Your task to perform on an android device: Open Chrome and go to the settings page Image 0: 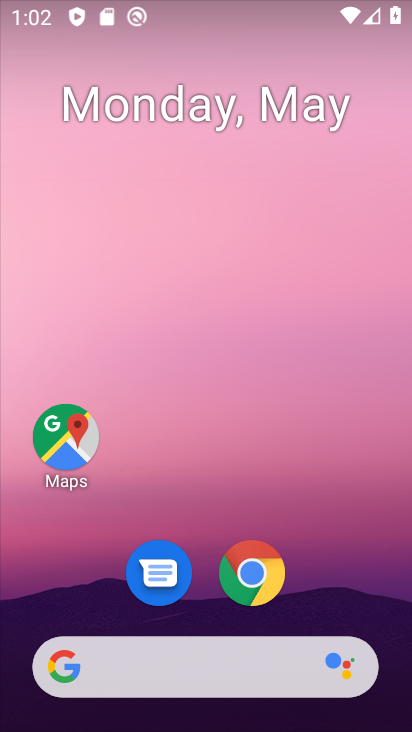
Step 0: click (251, 571)
Your task to perform on an android device: Open Chrome and go to the settings page Image 1: 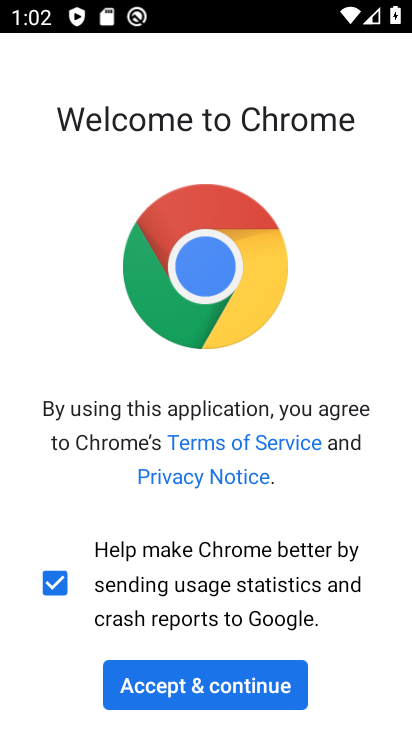
Step 1: click (193, 681)
Your task to perform on an android device: Open Chrome and go to the settings page Image 2: 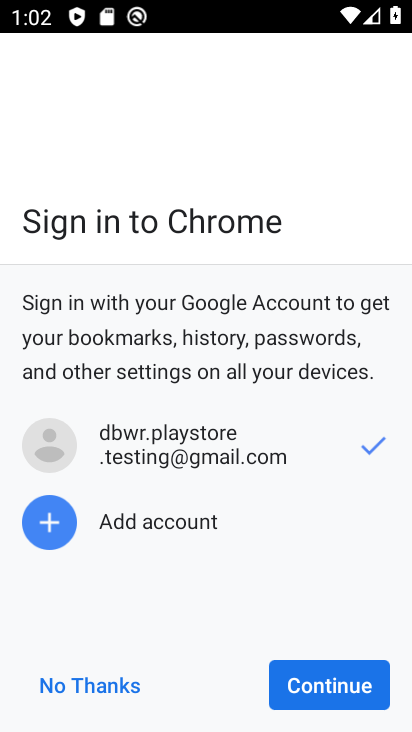
Step 2: click (328, 679)
Your task to perform on an android device: Open Chrome and go to the settings page Image 3: 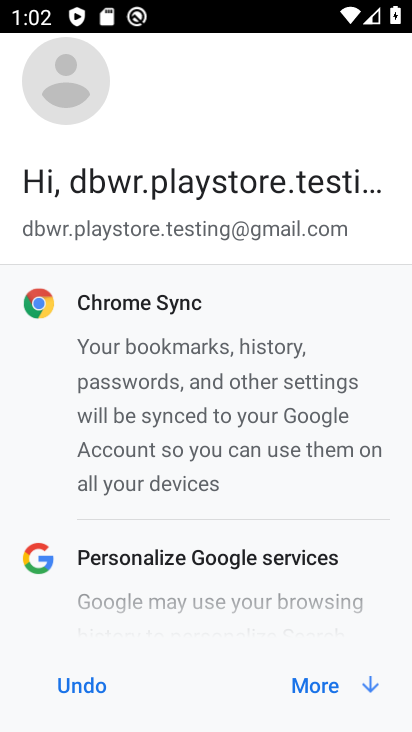
Step 3: click (306, 689)
Your task to perform on an android device: Open Chrome and go to the settings page Image 4: 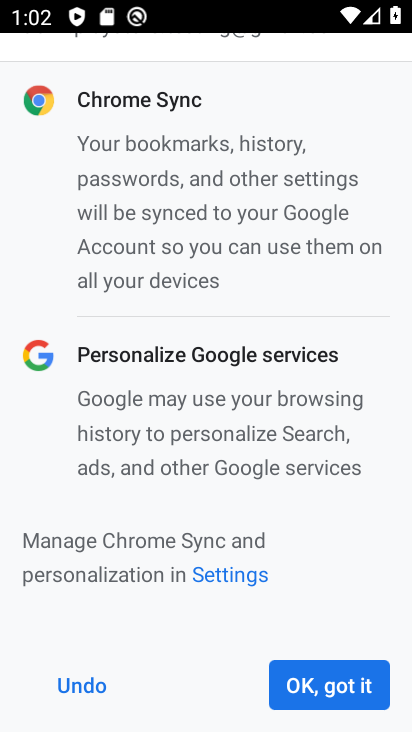
Step 4: click (321, 685)
Your task to perform on an android device: Open Chrome and go to the settings page Image 5: 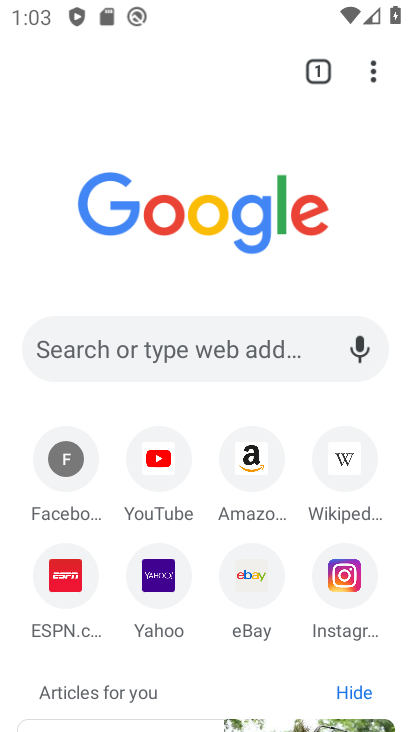
Step 5: click (373, 71)
Your task to perform on an android device: Open Chrome and go to the settings page Image 6: 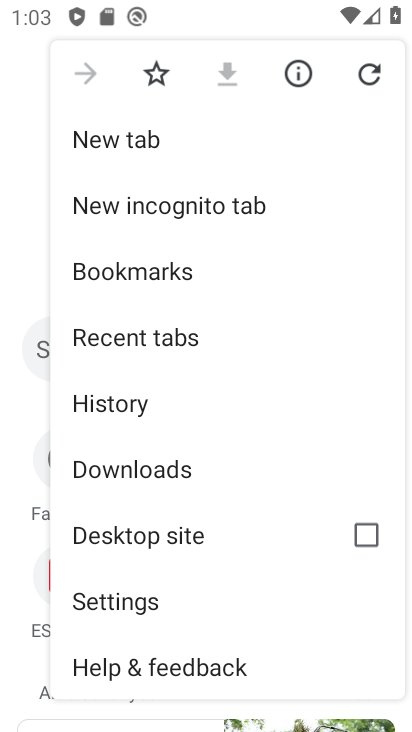
Step 6: click (138, 612)
Your task to perform on an android device: Open Chrome and go to the settings page Image 7: 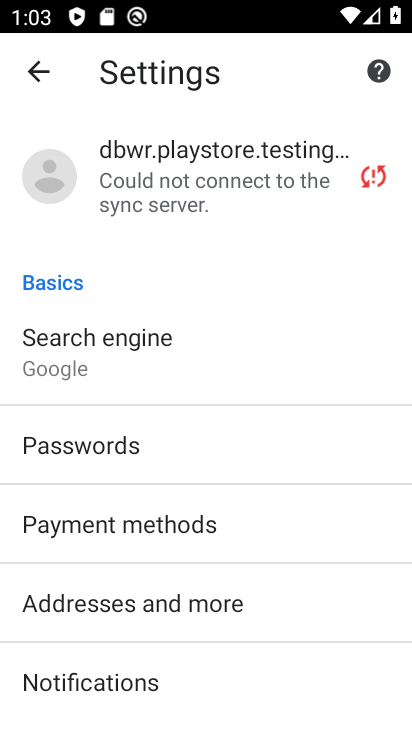
Step 7: task complete